Your task to perform on an android device: Go to Google Image 0: 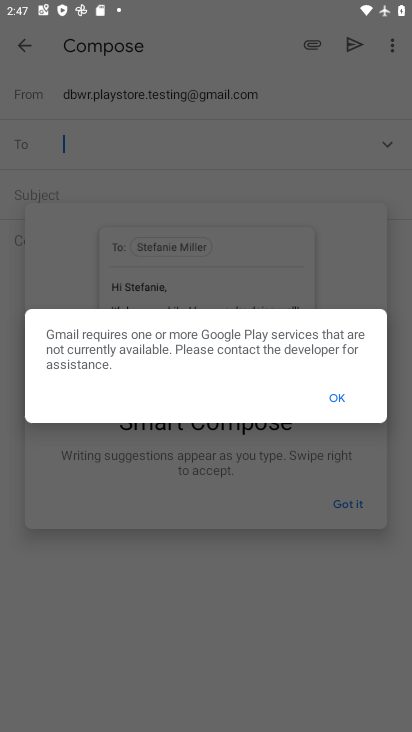
Step 0: press home button
Your task to perform on an android device: Go to Google Image 1: 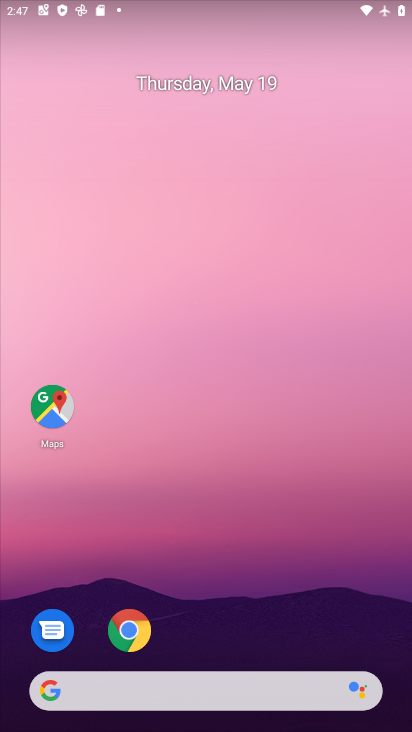
Step 1: click (128, 640)
Your task to perform on an android device: Go to Google Image 2: 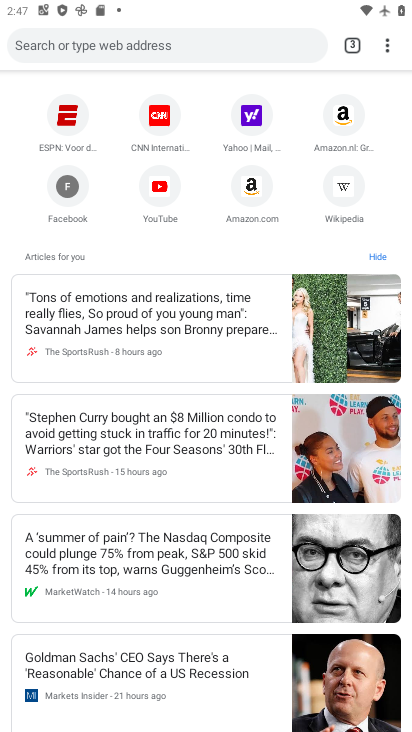
Step 2: task complete